Your task to perform on an android device: find photos in the google photos app Image 0: 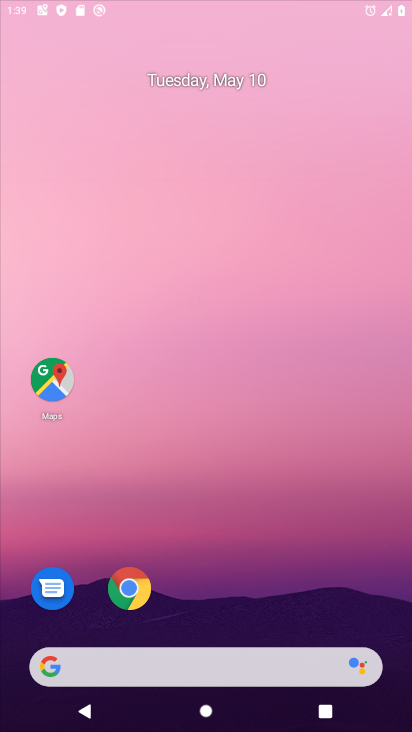
Step 0: click (290, 235)
Your task to perform on an android device: find photos in the google photos app Image 1: 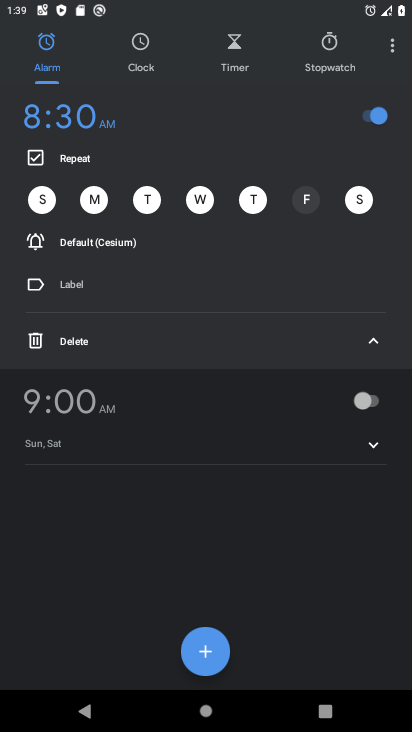
Step 1: press home button
Your task to perform on an android device: find photos in the google photos app Image 2: 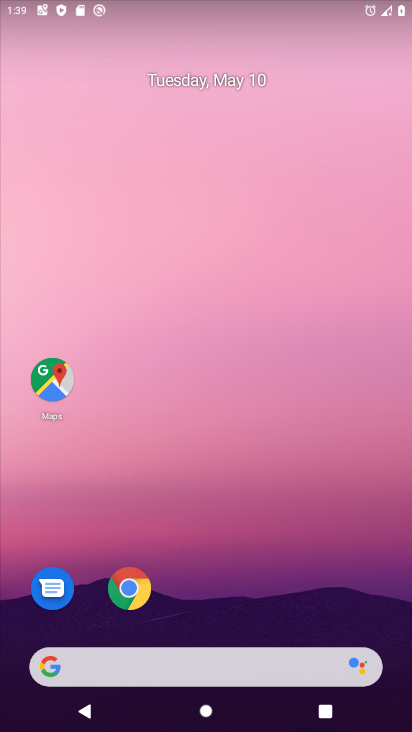
Step 2: drag from (264, 523) to (257, 119)
Your task to perform on an android device: find photos in the google photos app Image 3: 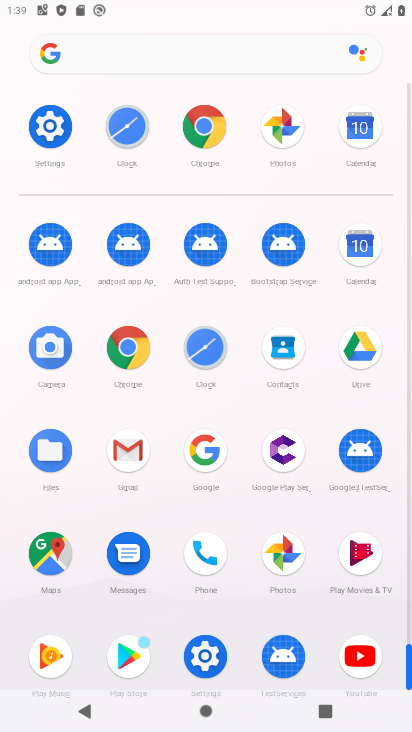
Step 3: click (283, 546)
Your task to perform on an android device: find photos in the google photos app Image 4: 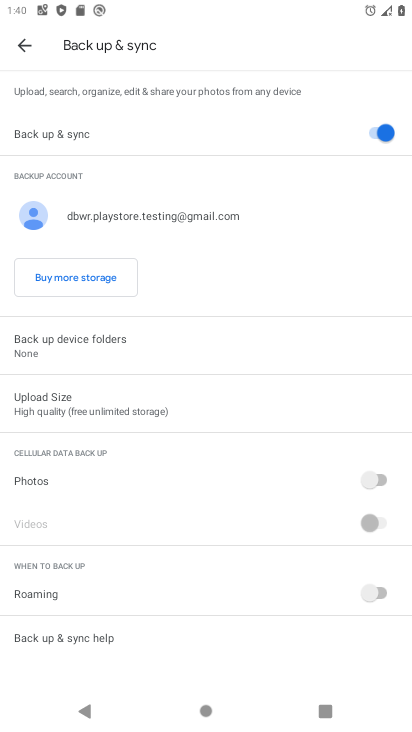
Step 4: drag from (143, 604) to (138, 484)
Your task to perform on an android device: find photos in the google photos app Image 5: 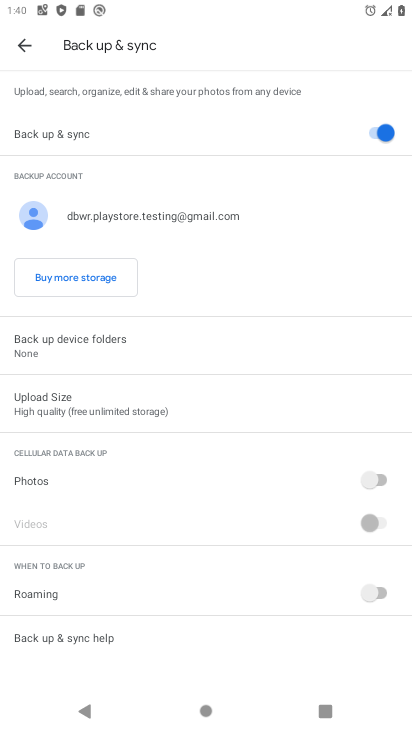
Step 5: click (15, 37)
Your task to perform on an android device: find photos in the google photos app Image 6: 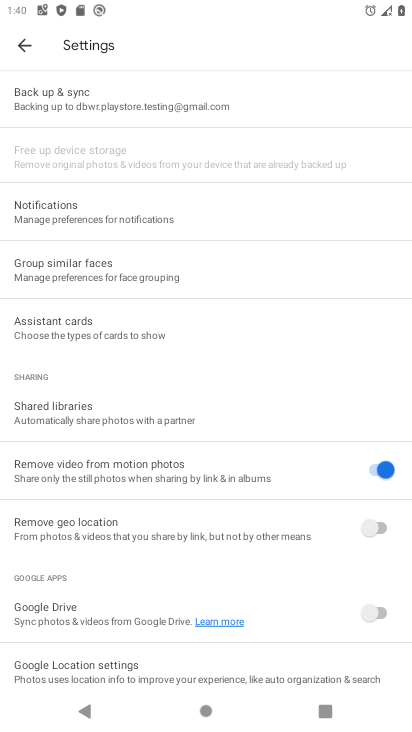
Step 6: click (21, 38)
Your task to perform on an android device: find photos in the google photos app Image 7: 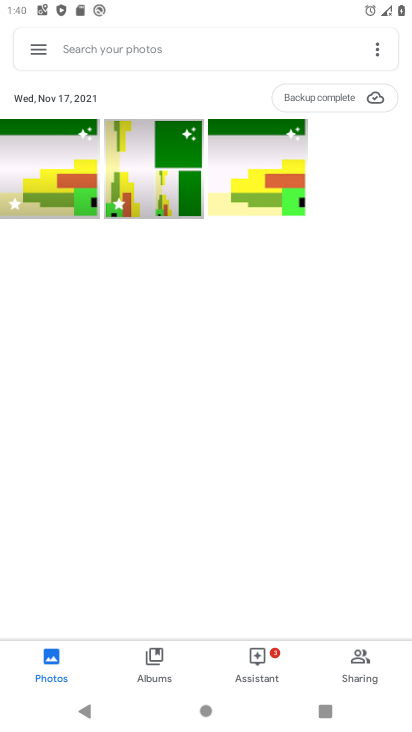
Step 7: click (64, 180)
Your task to perform on an android device: find photos in the google photos app Image 8: 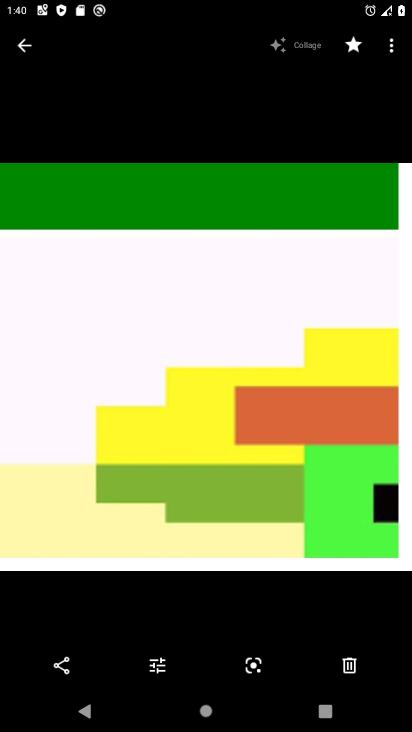
Step 8: task complete